Your task to perform on an android device: Go to sound settings Image 0: 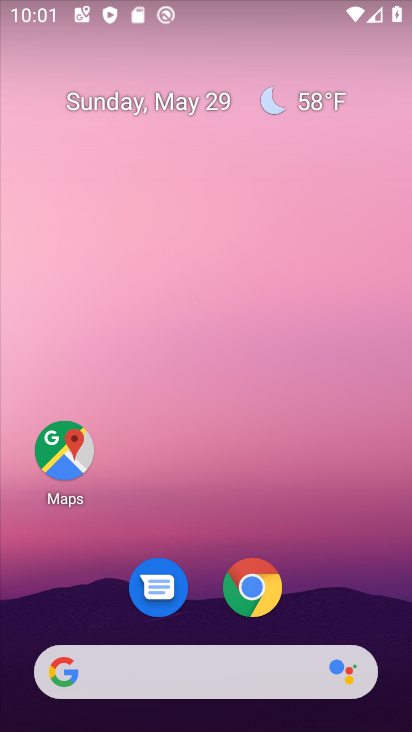
Step 0: drag from (349, 606) to (305, 188)
Your task to perform on an android device: Go to sound settings Image 1: 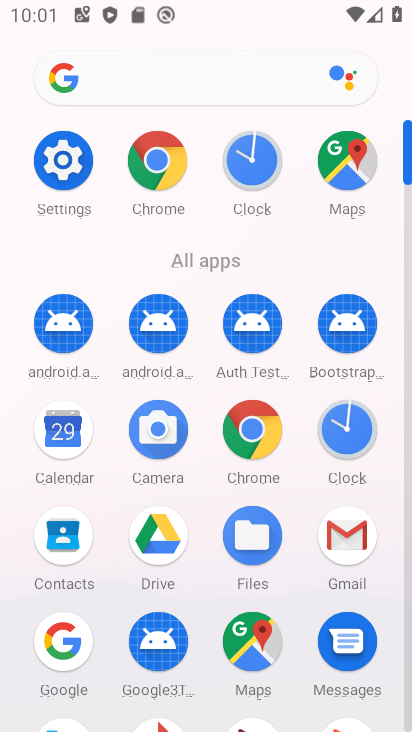
Step 1: click (69, 162)
Your task to perform on an android device: Go to sound settings Image 2: 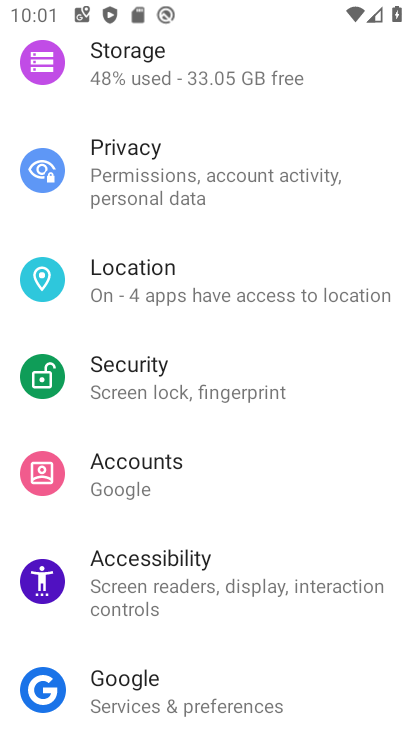
Step 2: drag from (214, 594) to (167, 235)
Your task to perform on an android device: Go to sound settings Image 3: 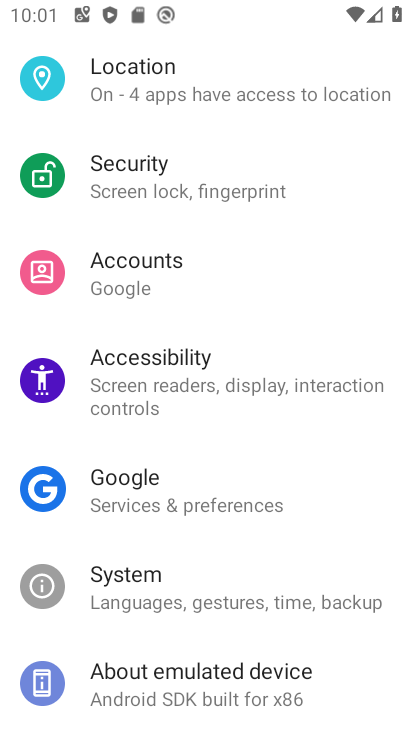
Step 3: drag from (193, 178) to (201, 729)
Your task to perform on an android device: Go to sound settings Image 4: 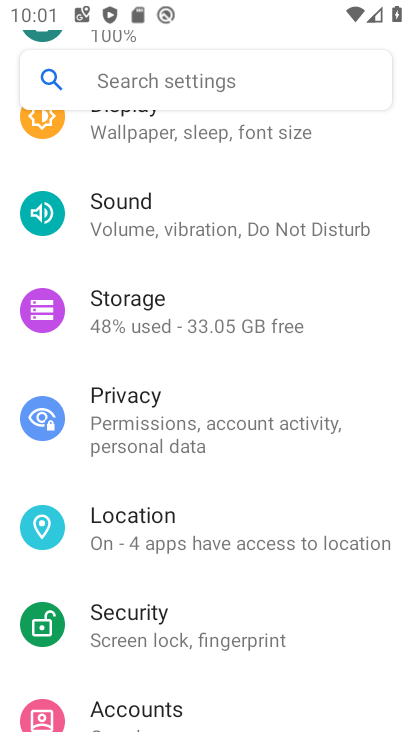
Step 4: click (149, 237)
Your task to perform on an android device: Go to sound settings Image 5: 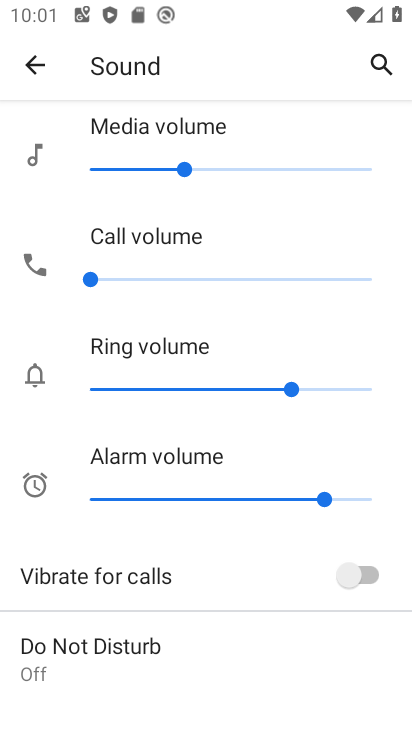
Step 5: task complete